Your task to perform on an android device: Open Chrome and go to the settings page Image 0: 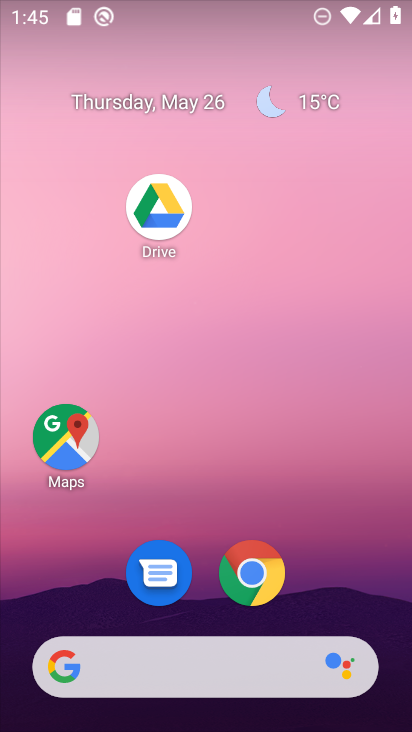
Step 0: drag from (348, 533) to (307, 473)
Your task to perform on an android device: Open Chrome and go to the settings page Image 1: 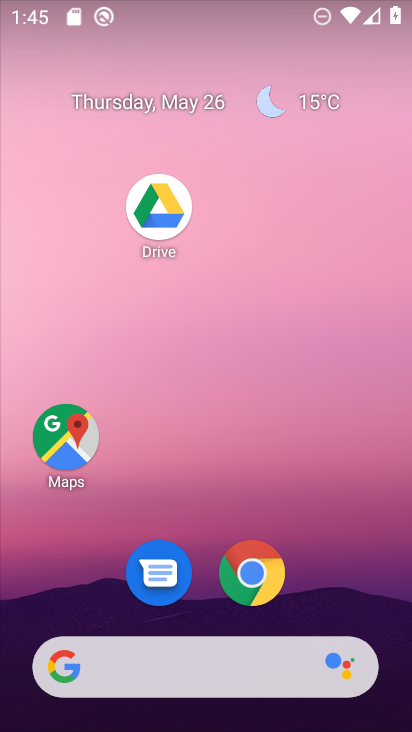
Step 1: click (266, 553)
Your task to perform on an android device: Open Chrome and go to the settings page Image 2: 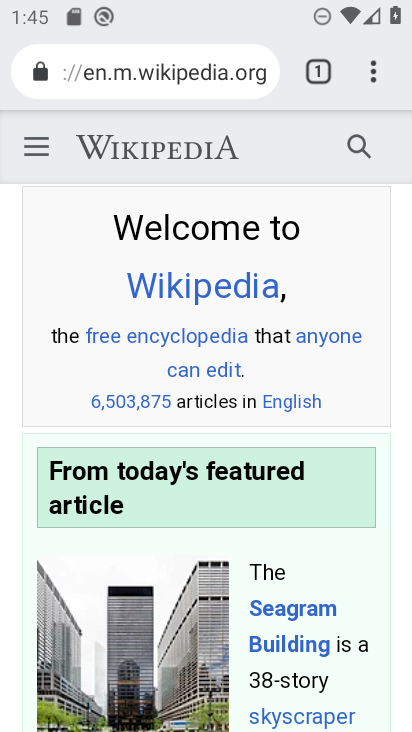
Step 2: click (369, 70)
Your task to perform on an android device: Open Chrome and go to the settings page Image 3: 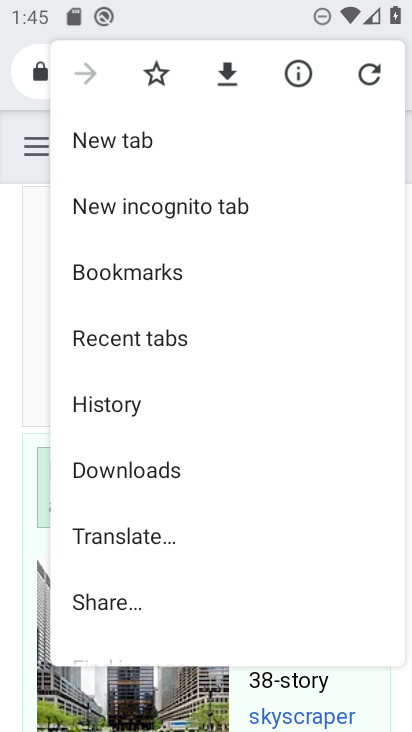
Step 3: drag from (174, 562) to (169, 318)
Your task to perform on an android device: Open Chrome and go to the settings page Image 4: 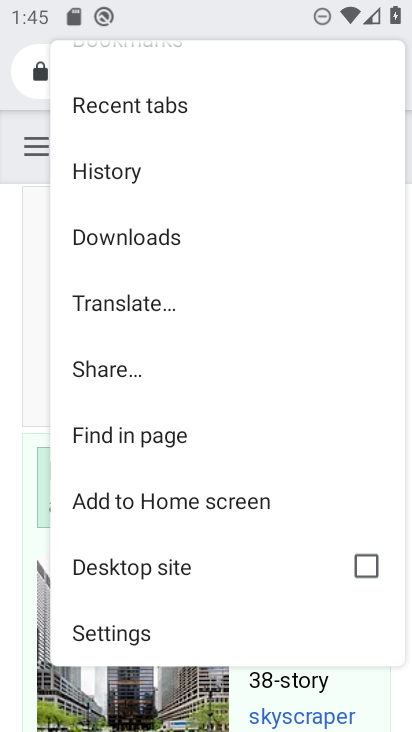
Step 4: click (121, 619)
Your task to perform on an android device: Open Chrome and go to the settings page Image 5: 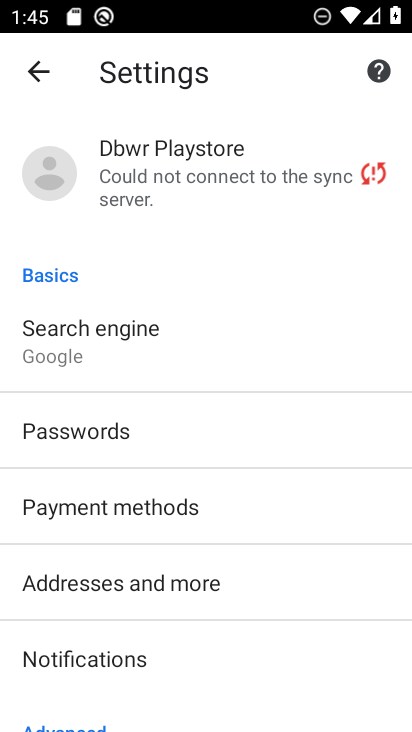
Step 5: task complete